Your task to perform on an android device: choose inbox layout in the gmail app Image 0: 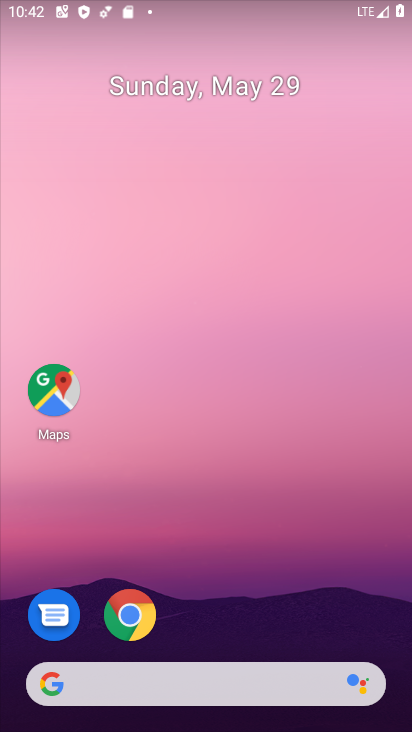
Step 0: drag from (383, 625) to (372, 282)
Your task to perform on an android device: choose inbox layout in the gmail app Image 1: 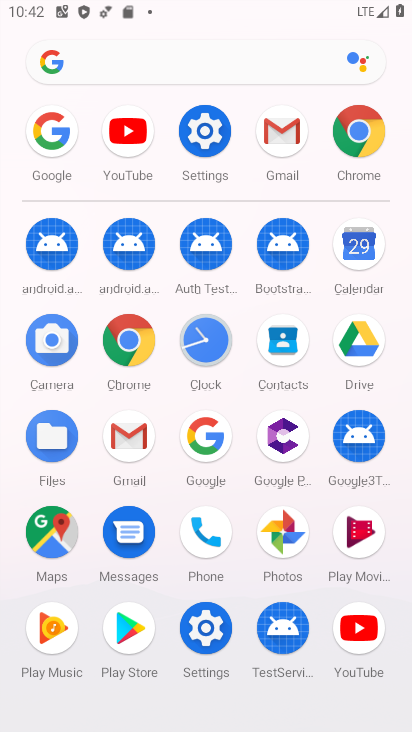
Step 1: click (139, 446)
Your task to perform on an android device: choose inbox layout in the gmail app Image 2: 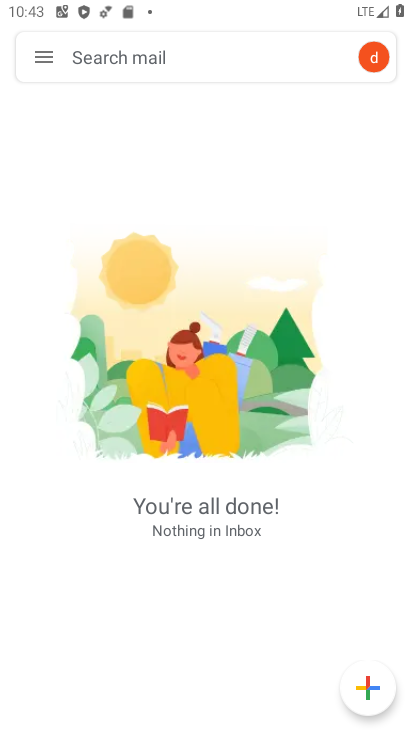
Step 2: click (45, 57)
Your task to perform on an android device: choose inbox layout in the gmail app Image 3: 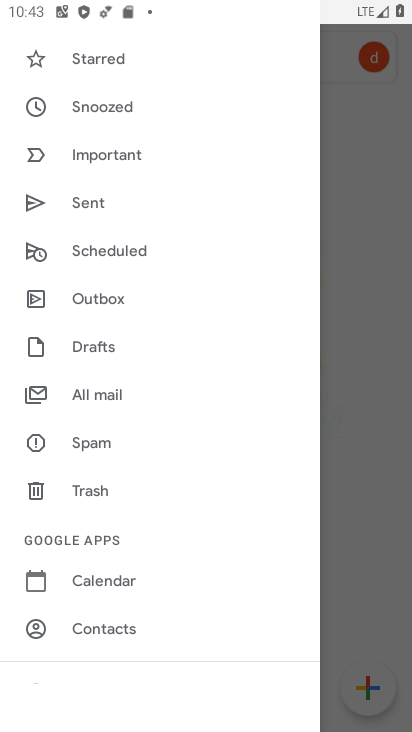
Step 3: drag from (245, 539) to (253, 401)
Your task to perform on an android device: choose inbox layout in the gmail app Image 4: 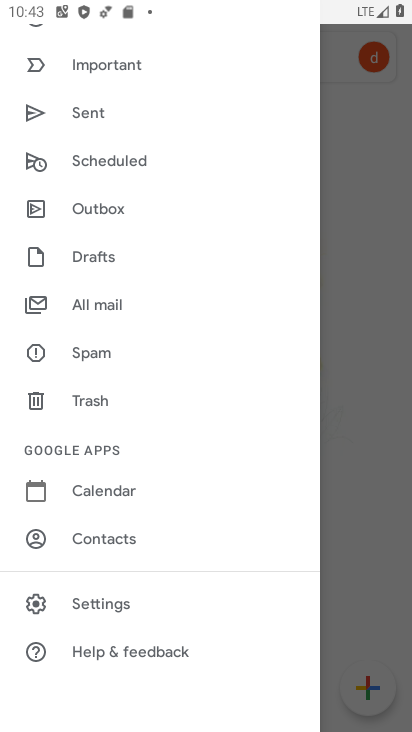
Step 4: click (160, 613)
Your task to perform on an android device: choose inbox layout in the gmail app Image 5: 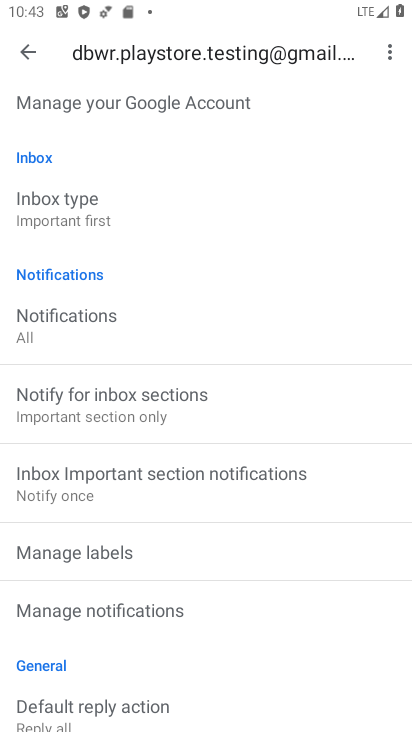
Step 5: click (94, 200)
Your task to perform on an android device: choose inbox layout in the gmail app Image 6: 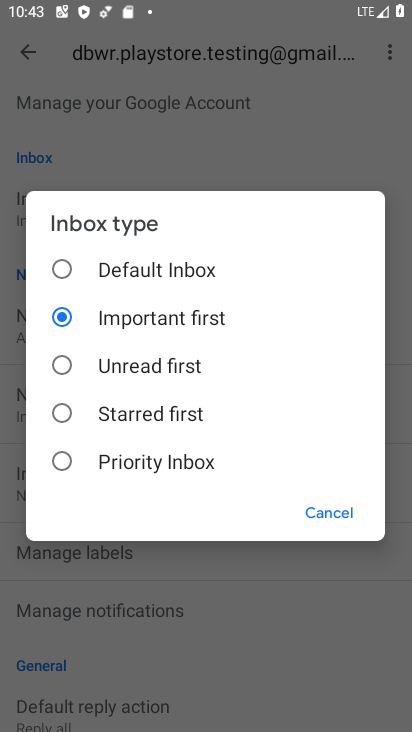
Step 6: click (140, 362)
Your task to perform on an android device: choose inbox layout in the gmail app Image 7: 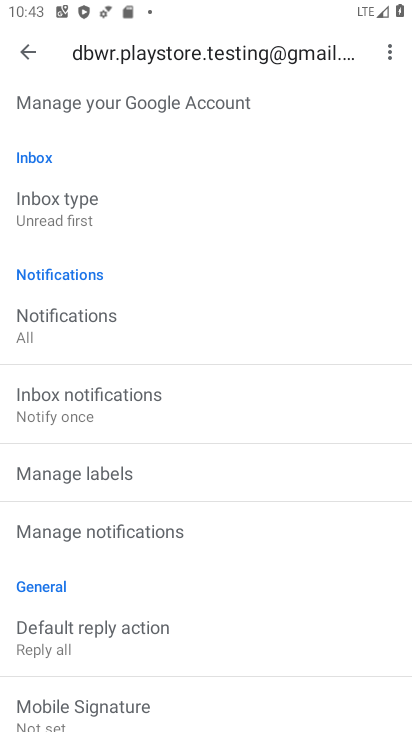
Step 7: task complete